Your task to perform on an android device: change the clock display to show seconds Image 0: 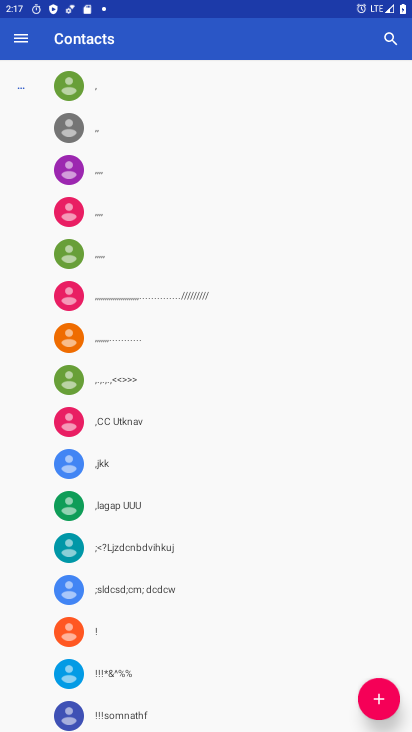
Step 0: press home button
Your task to perform on an android device: change the clock display to show seconds Image 1: 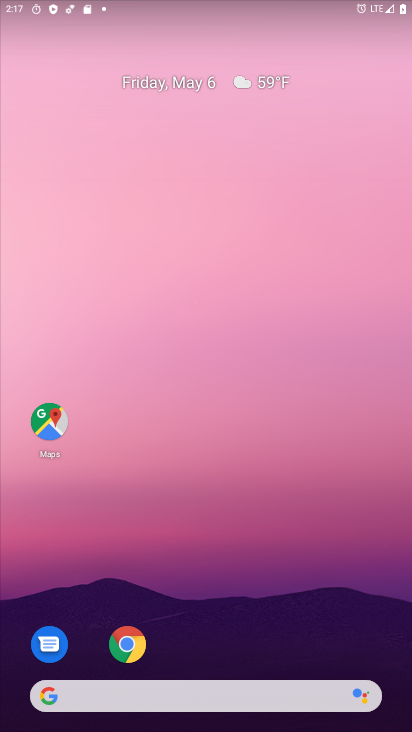
Step 1: drag from (204, 648) to (196, 230)
Your task to perform on an android device: change the clock display to show seconds Image 2: 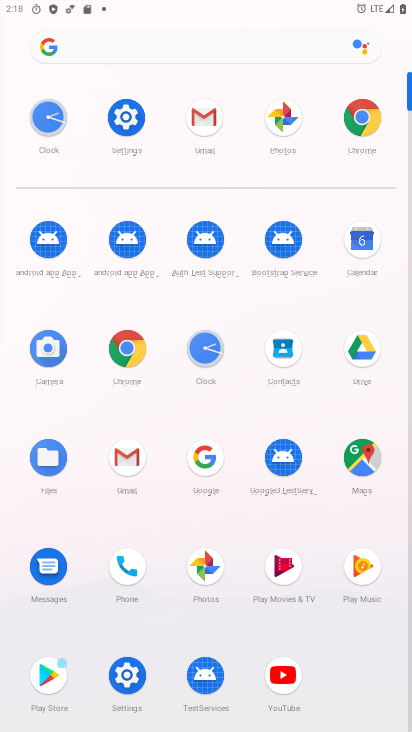
Step 2: click (50, 120)
Your task to perform on an android device: change the clock display to show seconds Image 3: 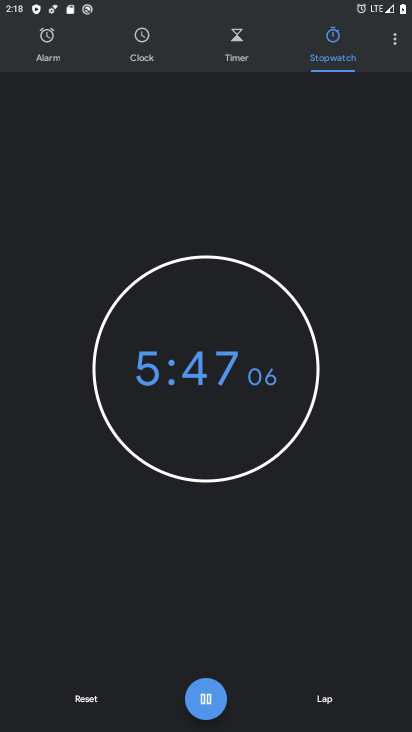
Step 3: click (390, 43)
Your task to perform on an android device: change the clock display to show seconds Image 4: 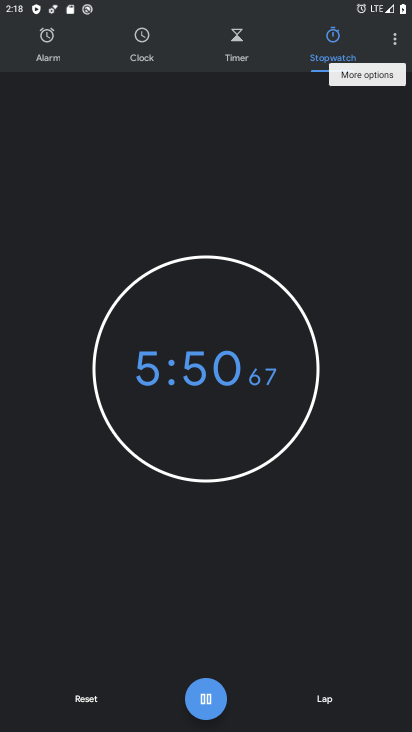
Step 4: click (390, 43)
Your task to perform on an android device: change the clock display to show seconds Image 5: 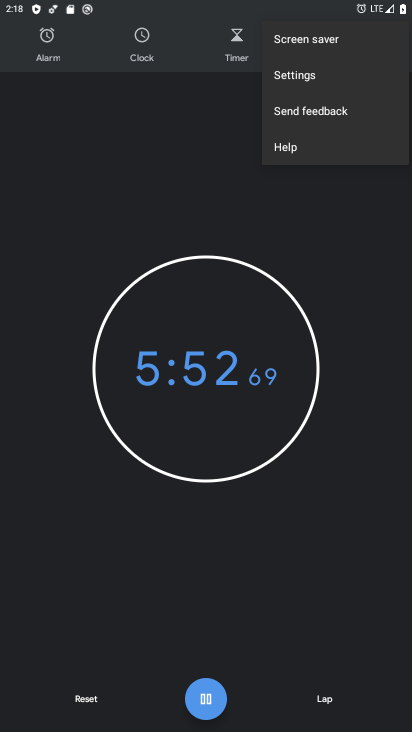
Step 5: click (365, 69)
Your task to perform on an android device: change the clock display to show seconds Image 6: 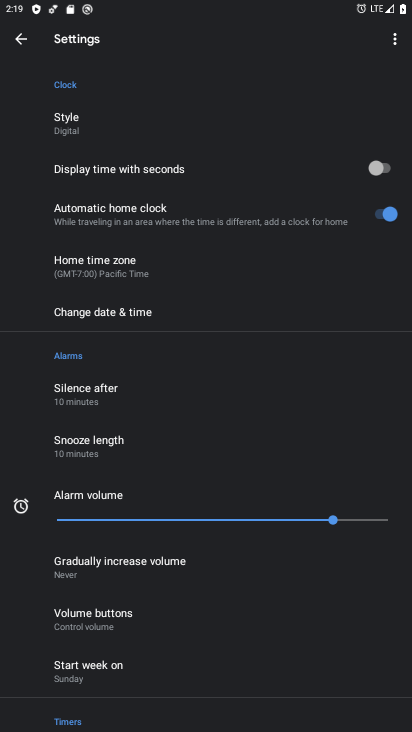
Step 6: click (375, 170)
Your task to perform on an android device: change the clock display to show seconds Image 7: 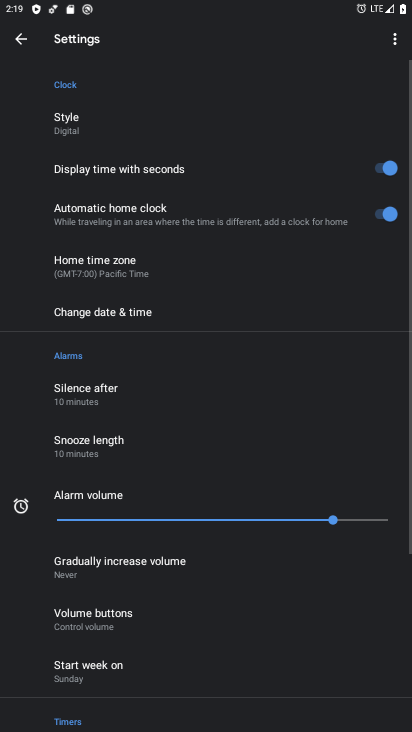
Step 7: task complete